Your task to perform on an android device: turn off notifications settings in the gmail app Image 0: 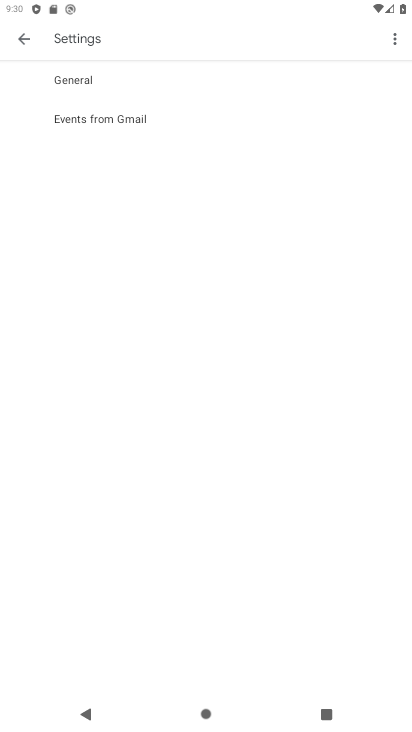
Step 0: press home button
Your task to perform on an android device: turn off notifications settings in the gmail app Image 1: 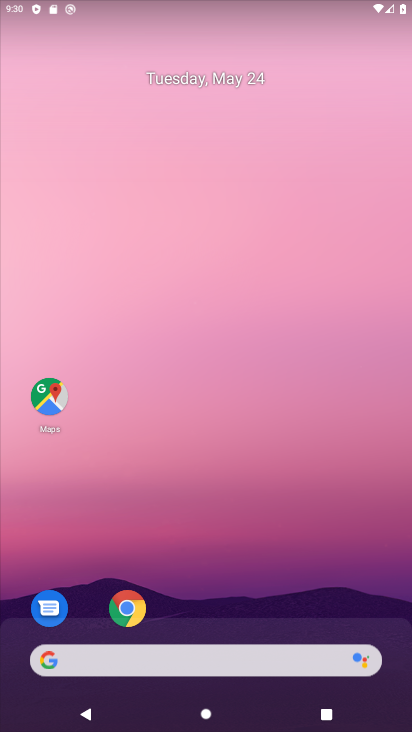
Step 1: drag from (224, 626) to (193, 71)
Your task to perform on an android device: turn off notifications settings in the gmail app Image 2: 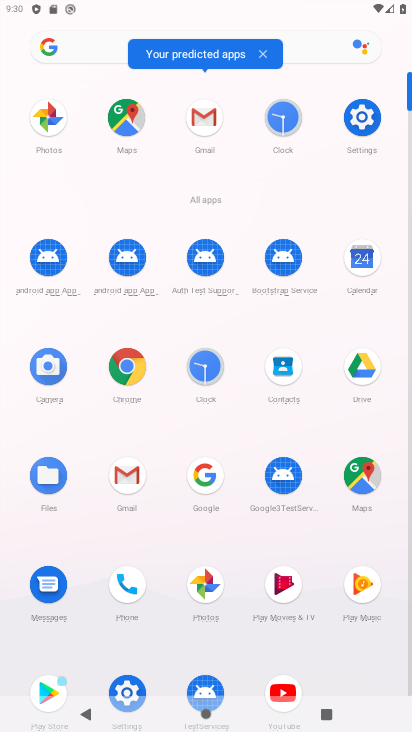
Step 2: click (129, 480)
Your task to perform on an android device: turn off notifications settings in the gmail app Image 3: 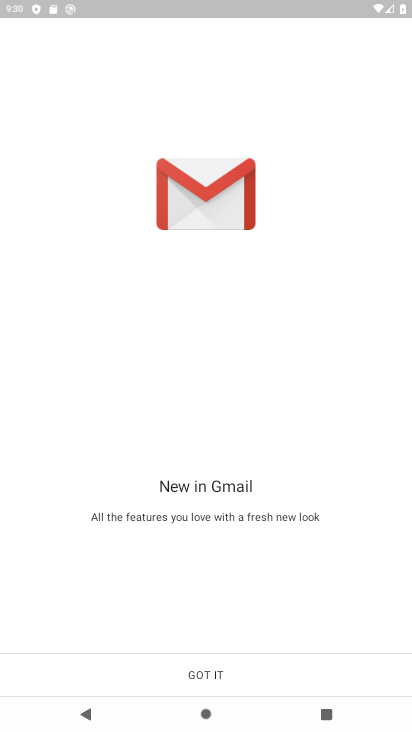
Step 3: click (201, 674)
Your task to perform on an android device: turn off notifications settings in the gmail app Image 4: 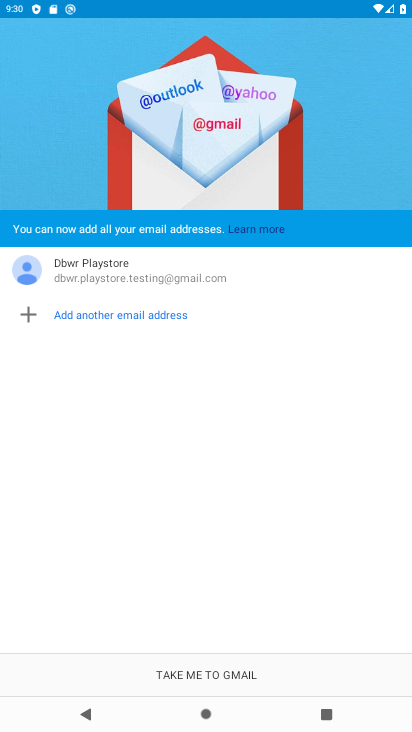
Step 4: click (199, 670)
Your task to perform on an android device: turn off notifications settings in the gmail app Image 5: 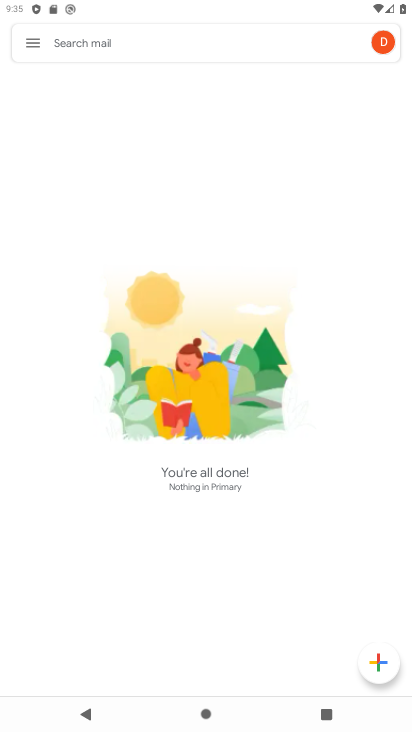
Step 5: click (30, 38)
Your task to perform on an android device: turn off notifications settings in the gmail app Image 6: 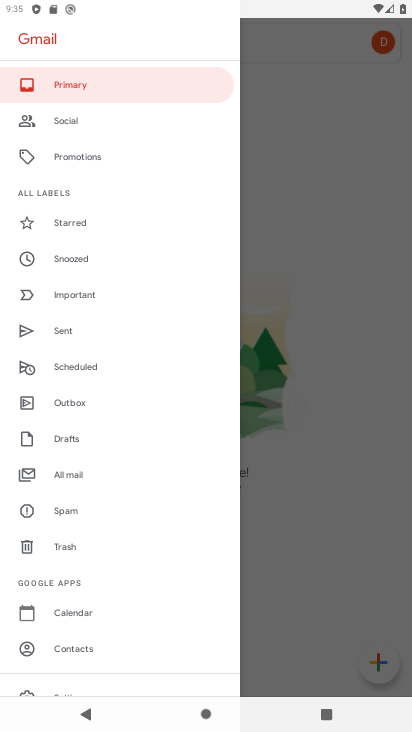
Step 6: drag from (99, 604) to (83, 116)
Your task to perform on an android device: turn off notifications settings in the gmail app Image 7: 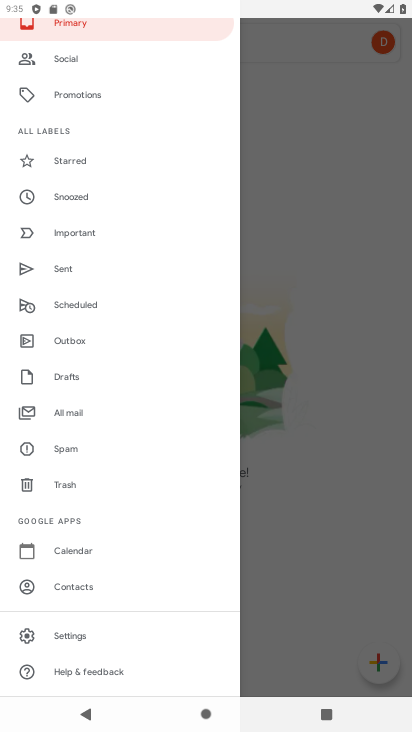
Step 7: click (65, 639)
Your task to perform on an android device: turn off notifications settings in the gmail app Image 8: 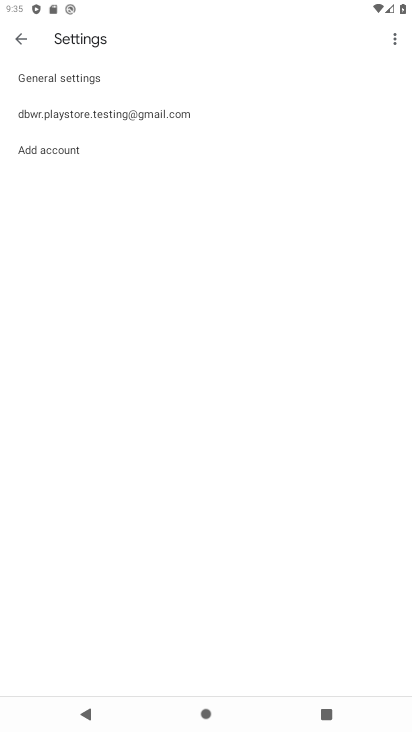
Step 8: click (123, 83)
Your task to perform on an android device: turn off notifications settings in the gmail app Image 9: 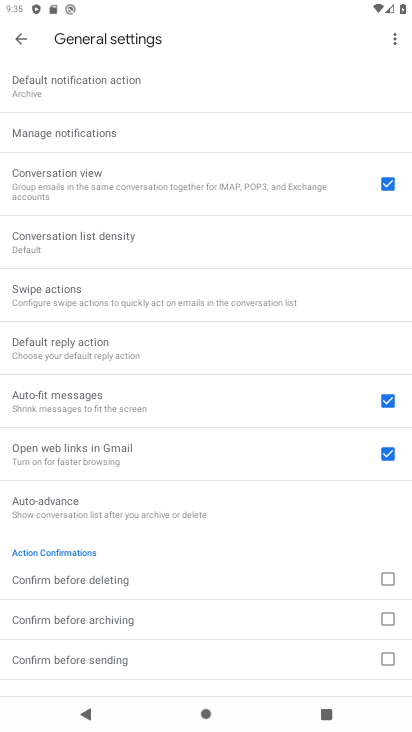
Step 9: click (116, 129)
Your task to perform on an android device: turn off notifications settings in the gmail app Image 10: 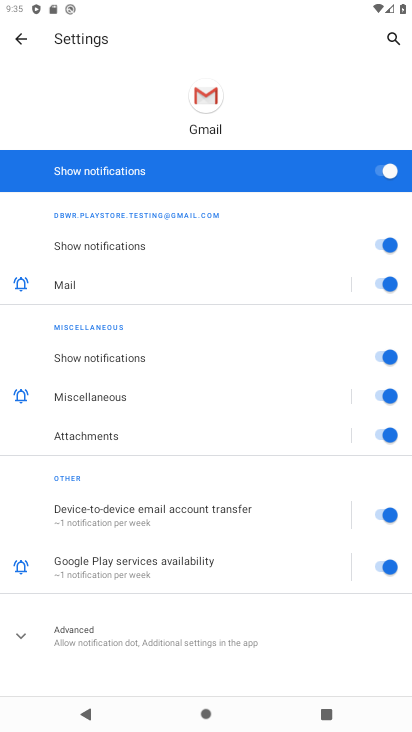
Step 10: click (379, 173)
Your task to perform on an android device: turn off notifications settings in the gmail app Image 11: 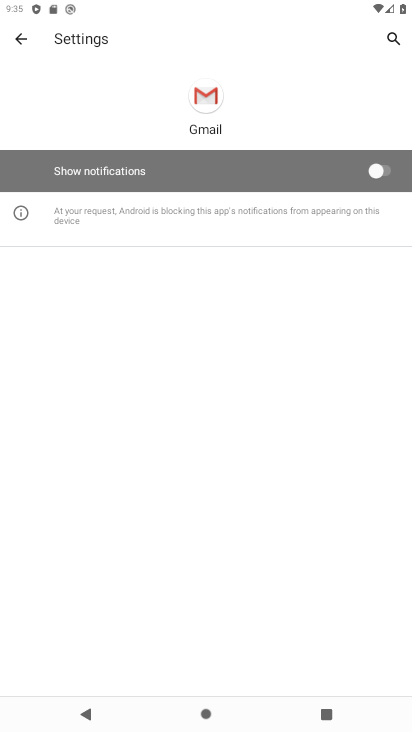
Step 11: task complete